Your task to perform on an android device: Open Chrome and go to settings Image 0: 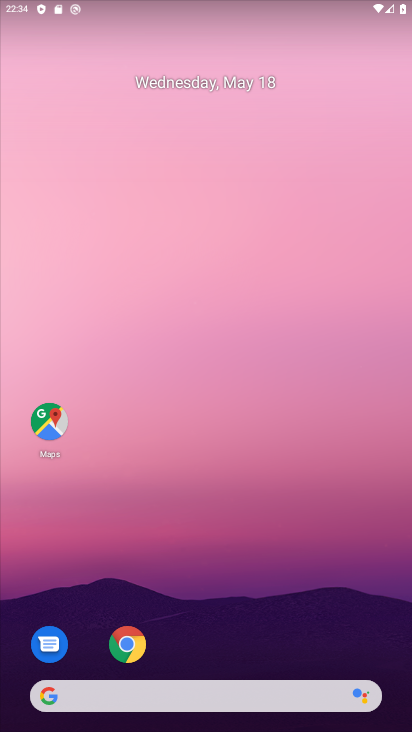
Step 0: click (125, 645)
Your task to perform on an android device: Open Chrome and go to settings Image 1: 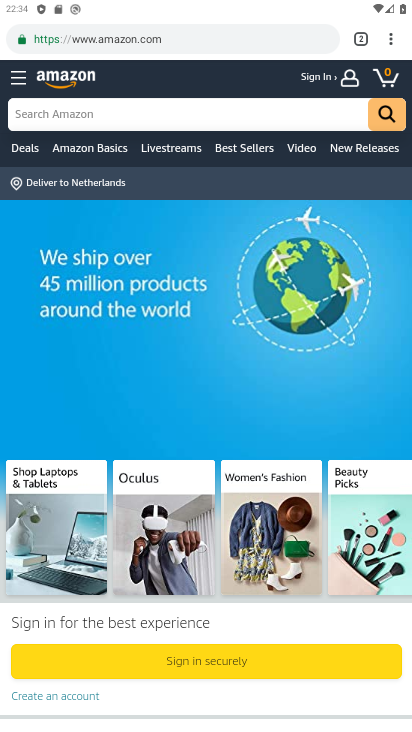
Step 1: task complete